Your task to perform on an android device: turn off airplane mode Image 0: 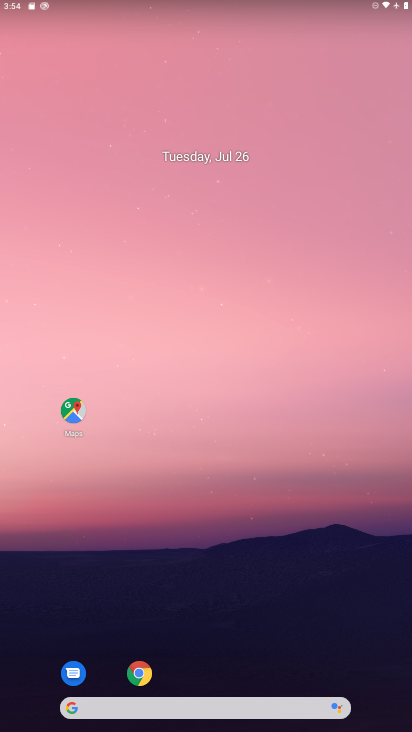
Step 0: drag from (287, 636) to (292, 22)
Your task to perform on an android device: turn off airplane mode Image 1: 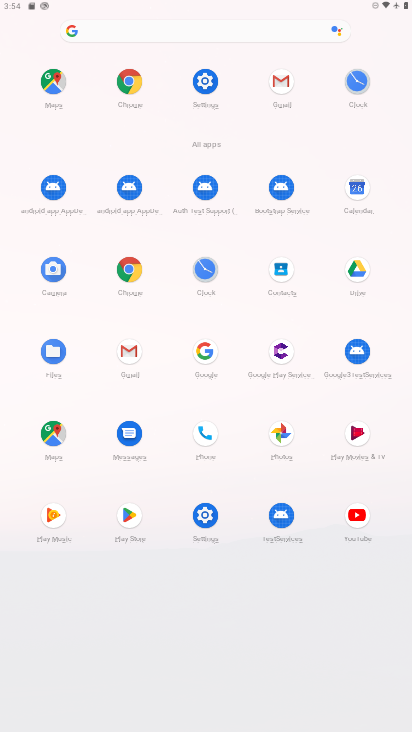
Step 1: click (215, 78)
Your task to perform on an android device: turn off airplane mode Image 2: 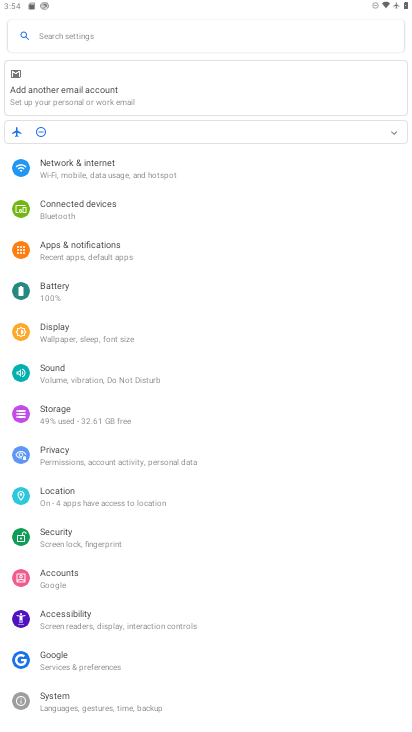
Step 2: click (78, 175)
Your task to perform on an android device: turn off airplane mode Image 3: 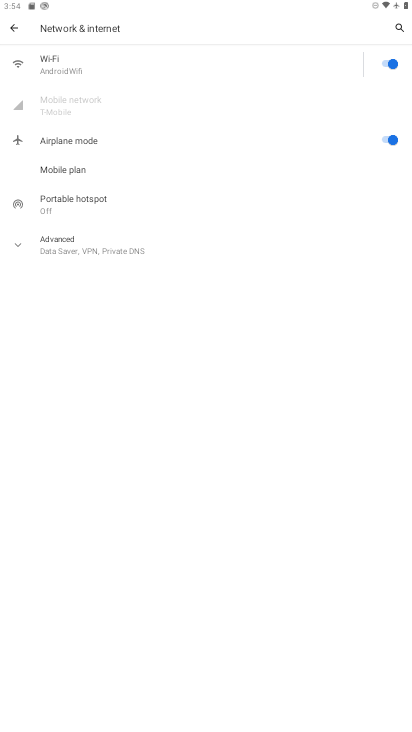
Step 3: click (391, 145)
Your task to perform on an android device: turn off airplane mode Image 4: 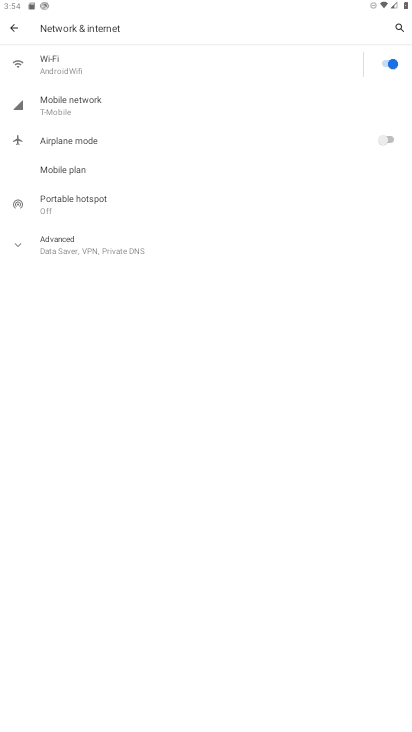
Step 4: task complete